Your task to perform on an android device: delete a single message in the gmail app Image 0: 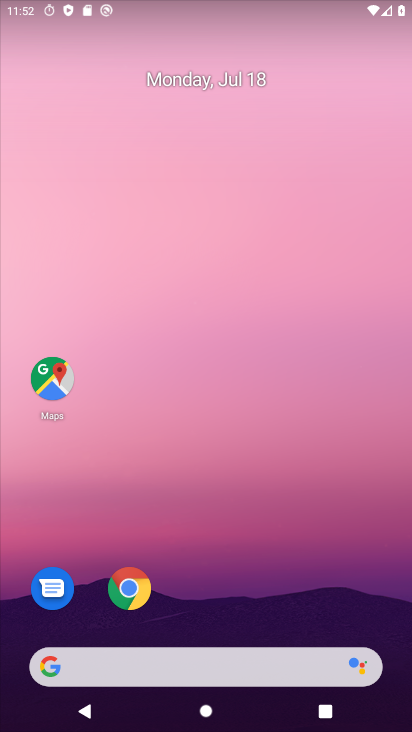
Step 0: drag from (263, 574) to (242, 72)
Your task to perform on an android device: delete a single message in the gmail app Image 1: 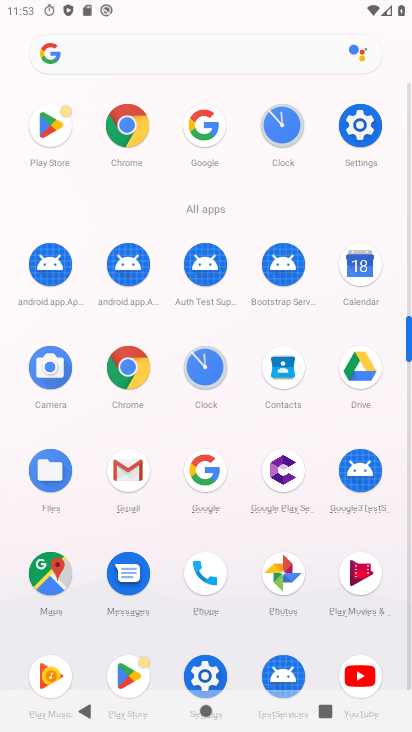
Step 1: click (119, 460)
Your task to perform on an android device: delete a single message in the gmail app Image 2: 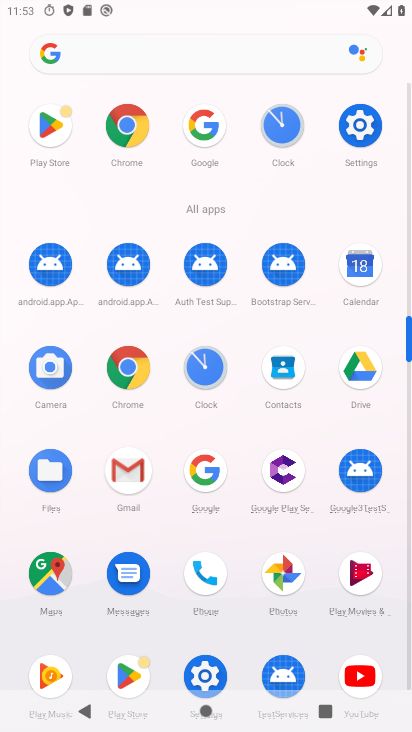
Step 2: click (122, 462)
Your task to perform on an android device: delete a single message in the gmail app Image 3: 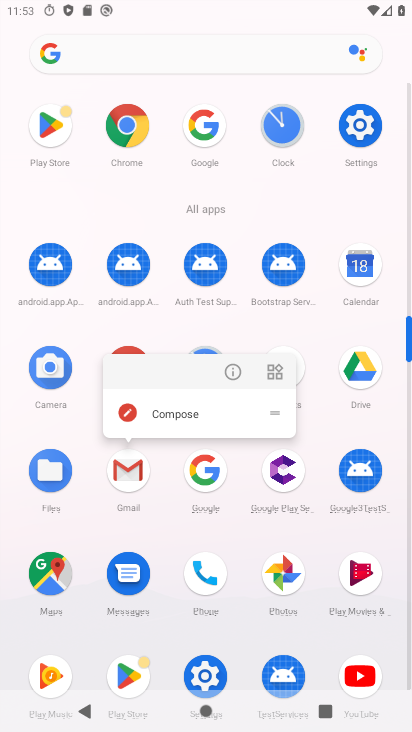
Step 3: click (118, 457)
Your task to perform on an android device: delete a single message in the gmail app Image 4: 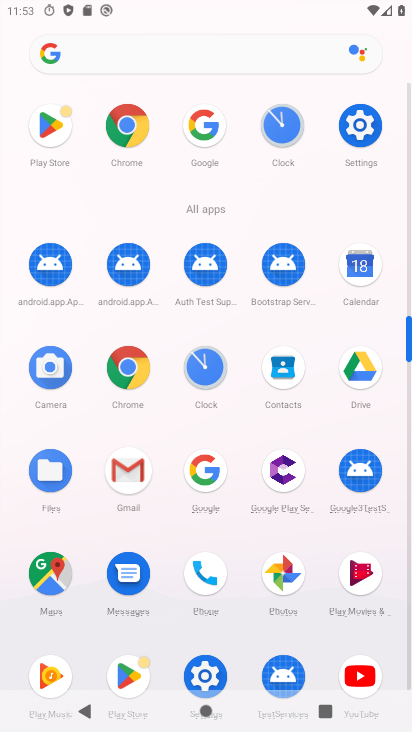
Step 4: click (119, 456)
Your task to perform on an android device: delete a single message in the gmail app Image 5: 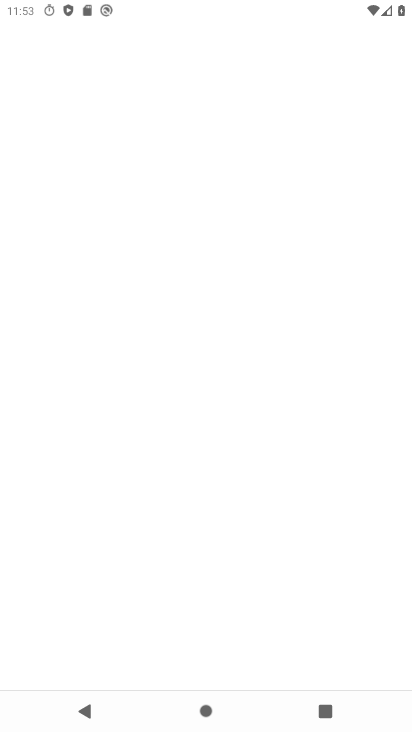
Step 5: click (120, 455)
Your task to perform on an android device: delete a single message in the gmail app Image 6: 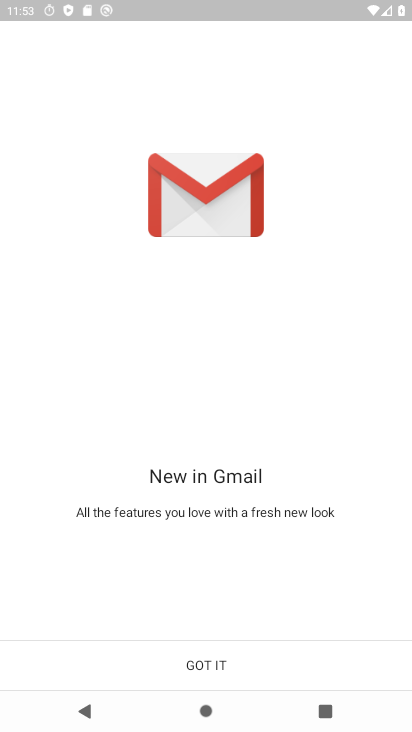
Step 6: click (198, 661)
Your task to perform on an android device: delete a single message in the gmail app Image 7: 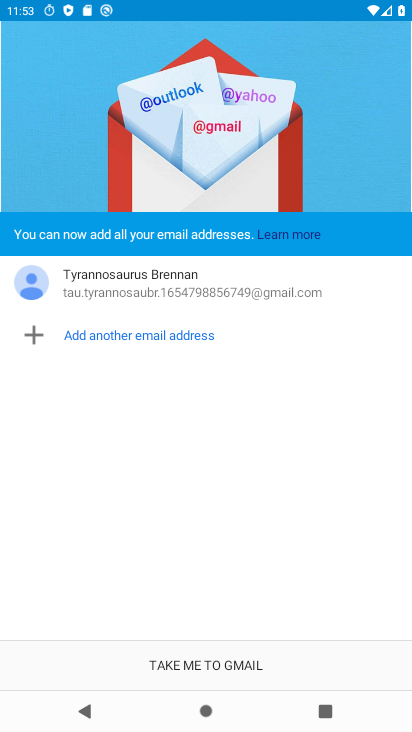
Step 7: click (218, 656)
Your task to perform on an android device: delete a single message in the gmail app Image 8: 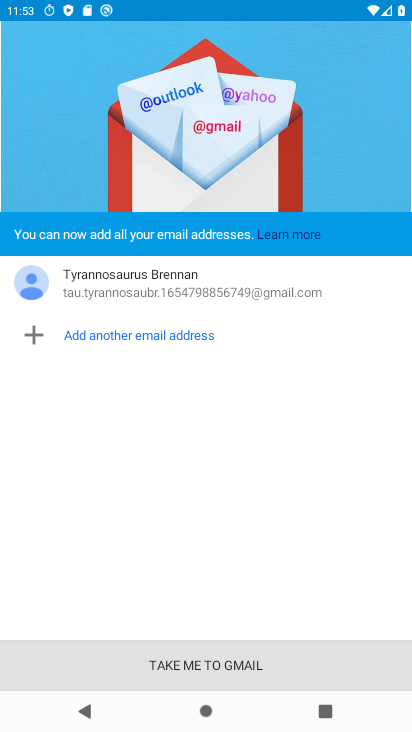
Step 8: click (223, 664)
Your task to perform on an android device: delete a single message in the gmail app Image 9: 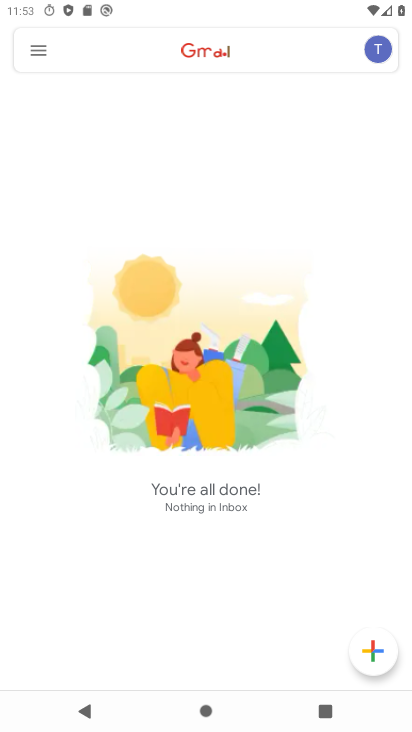
Step 9: click (40, 47)
Your task to perform on an android device: delete a single message in the gmail app Image 10: 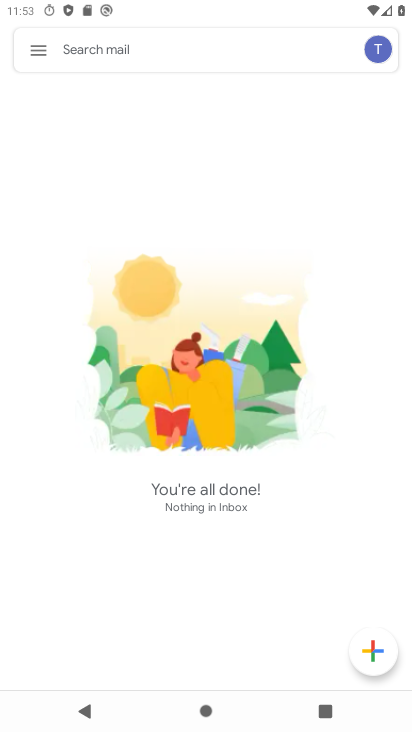
Step 10: click (39, 55)
Your task to perform on an android device: delete a single message in the gmail app Image 11: 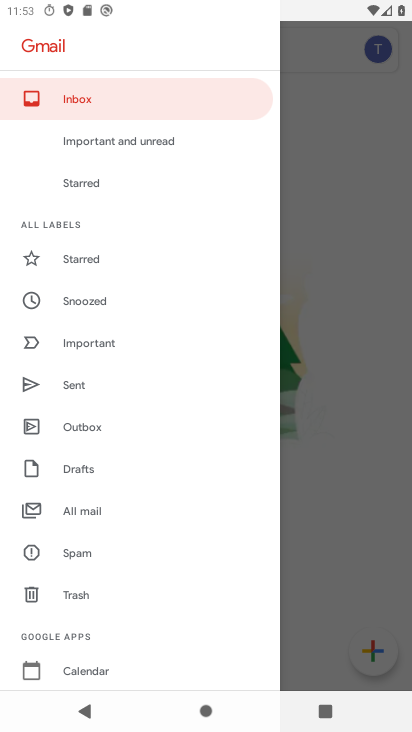
Step 11: drag from (141, 543) to (141, 199)
Your task to perform on an android device: delete a single message in the gmail app Image 12: 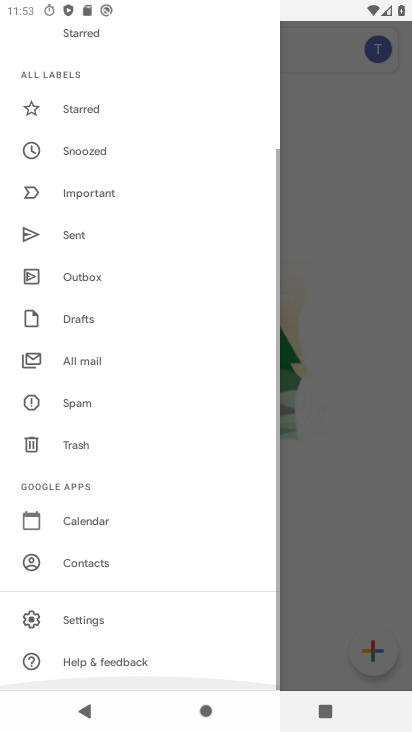
Step 12: drag from (193, 490) to (194, 299)
Your task to perform on an android device: delete a single message in the gmail app Image 13: 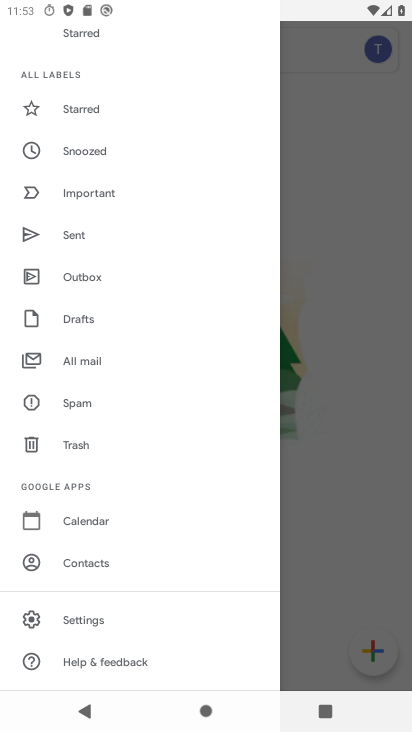
Step 13: click (76, 358)
Your task to perform on an android device: delete a single message in the gmail app Image 14: 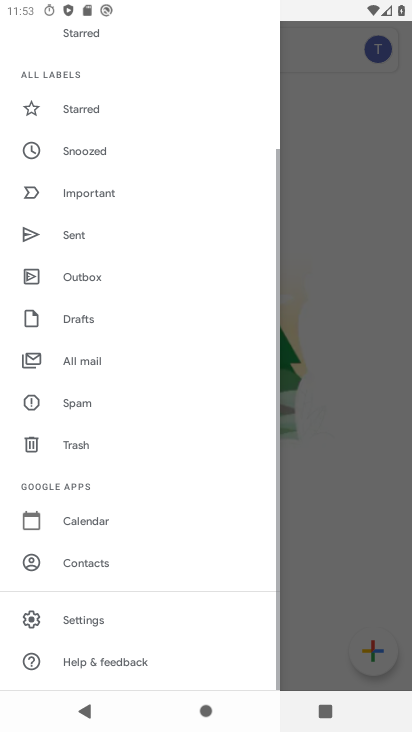
Step 14: click (76, 358)
Your task to perform on an android device: delete a single message in the gmail app Image 15: 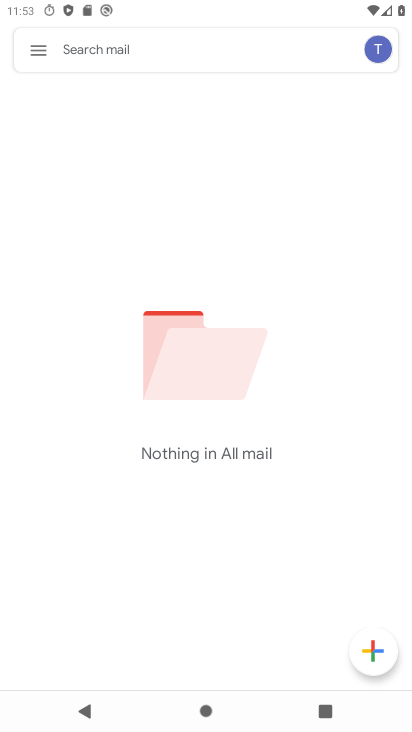
Step 15: task complete